Your task to perform on an android device: Go to Yahoo.com Image 0: 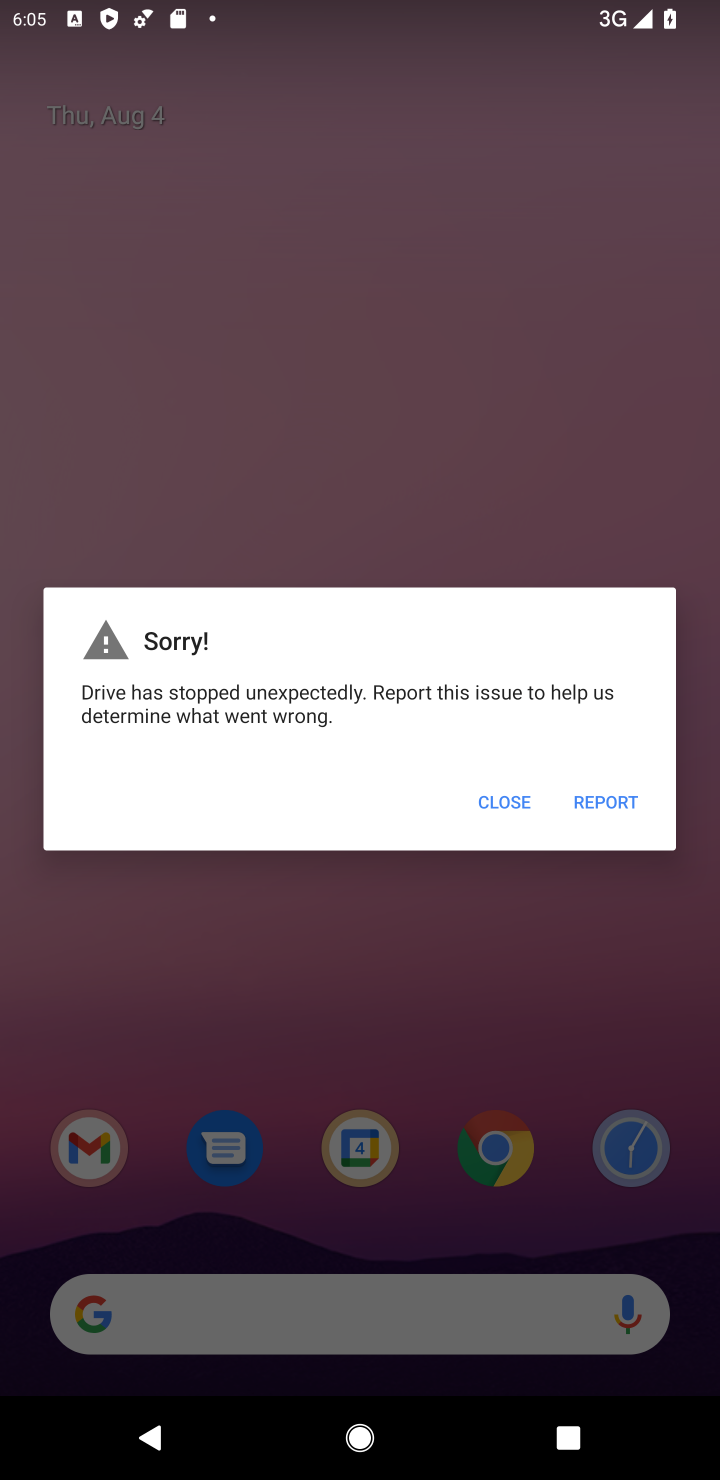
Step 0: press home button
Your task to perform on an android device: Go to Yahoo.com Image 1: 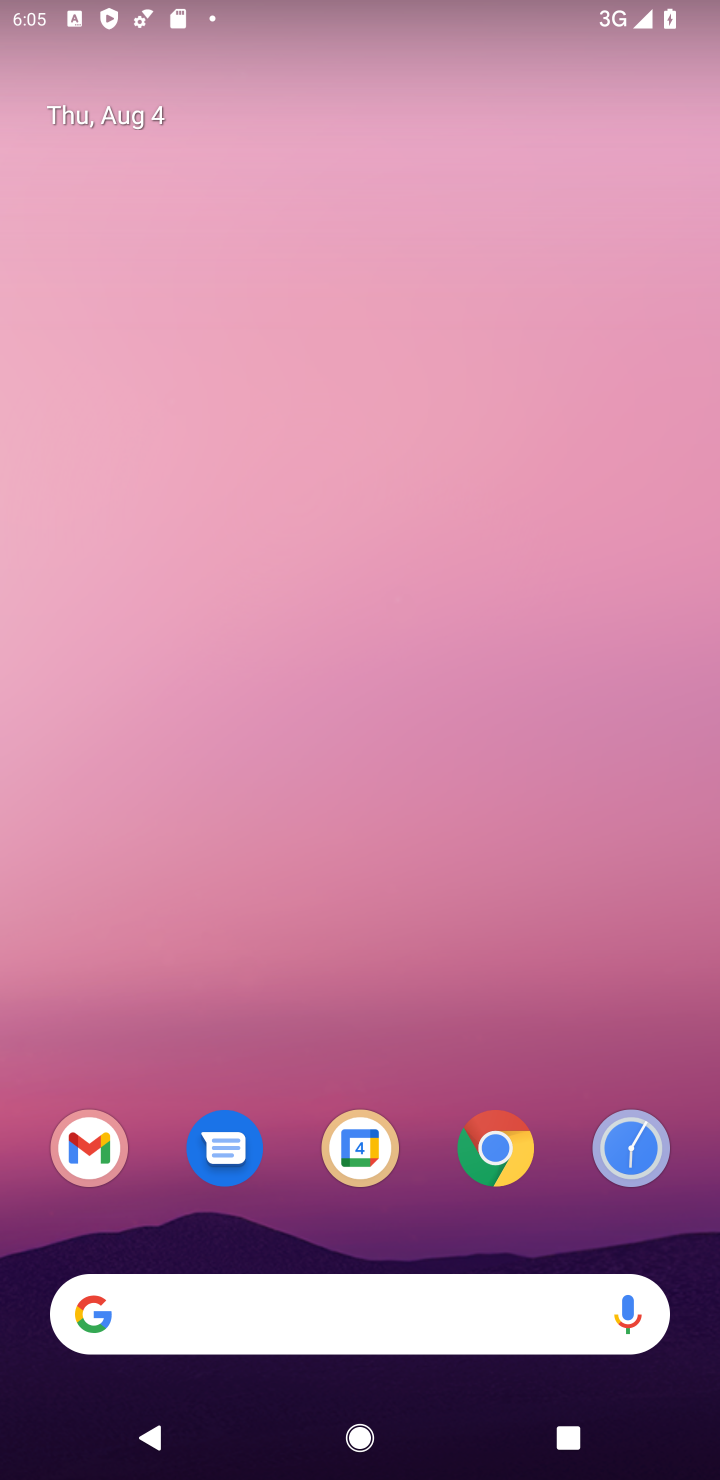
Step 1: click (492, 1152)
Your task to perform on an android device: Go to Yahoo.com Image 2: 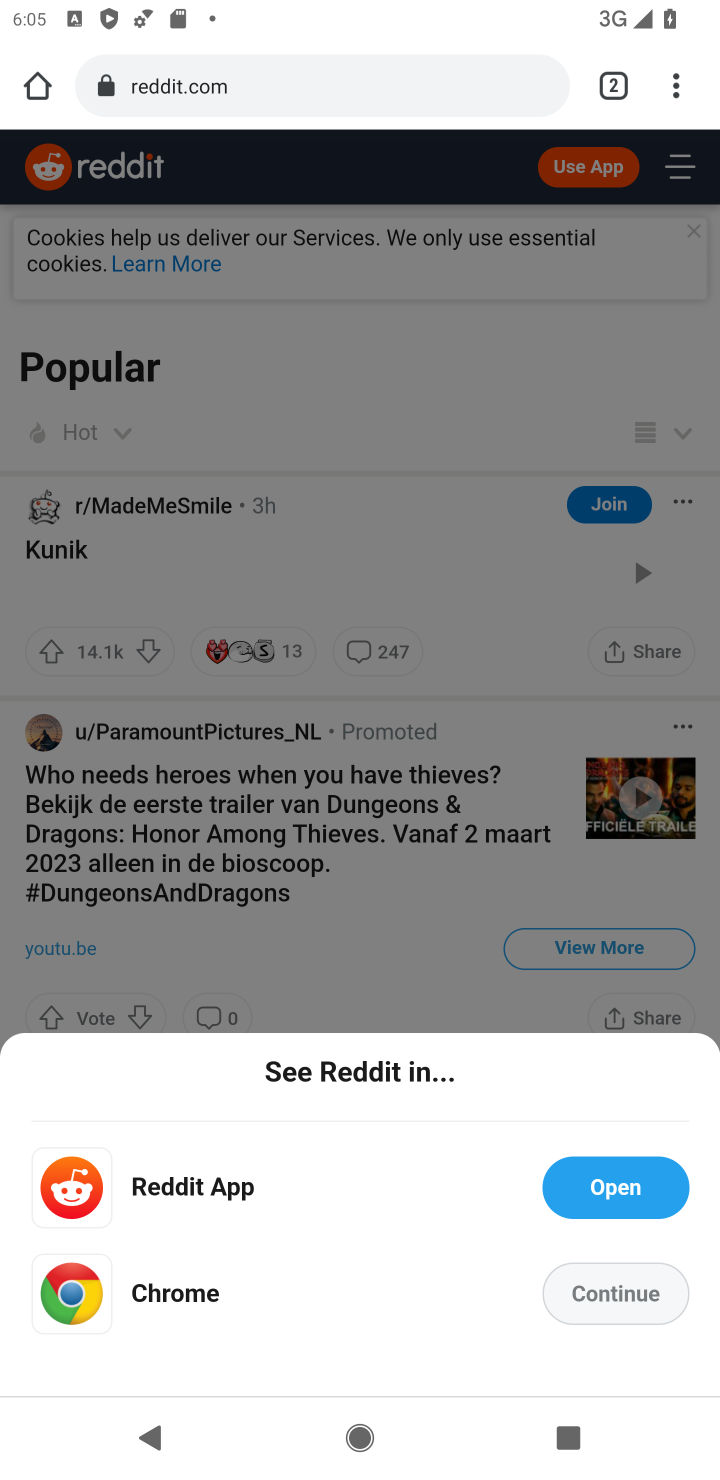
Step 2: click (293, 94)
Your task to perform on an android device: Go to Yahoo.com Image 3: 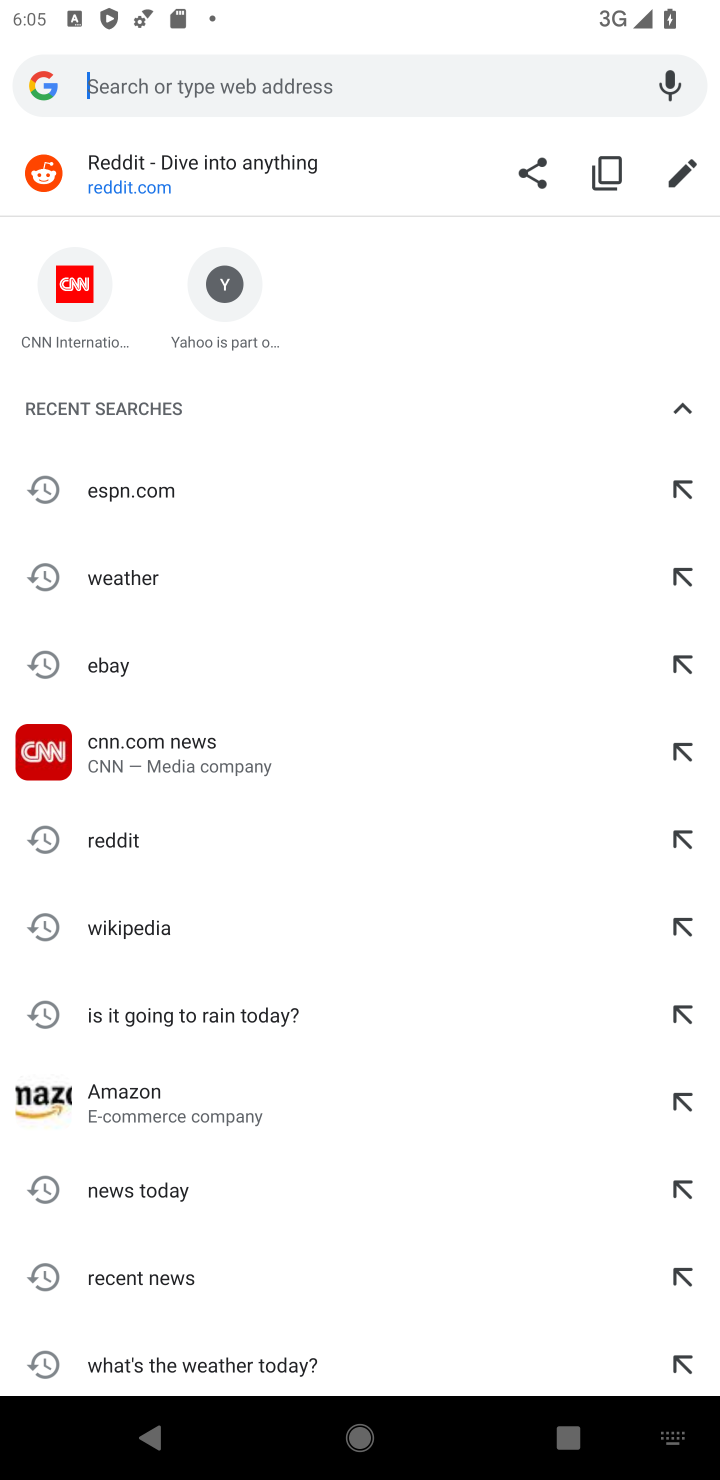
Step 3: type "yahoo.com"
Your task to perform on an android device: Go to Yahoo.com Image 4: 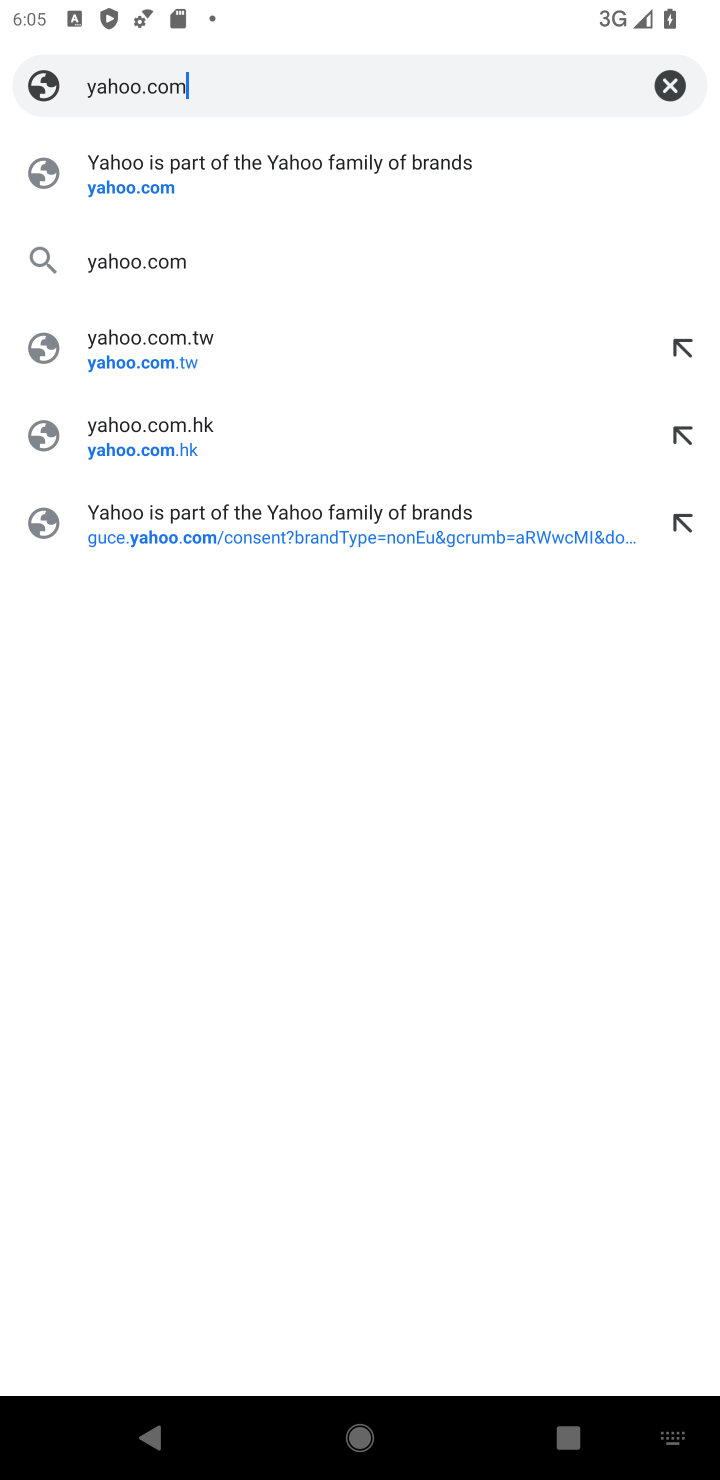
Step 4: click (137, 186)
Your task to perform on an android device: Go to Yahoo.com Image 5: 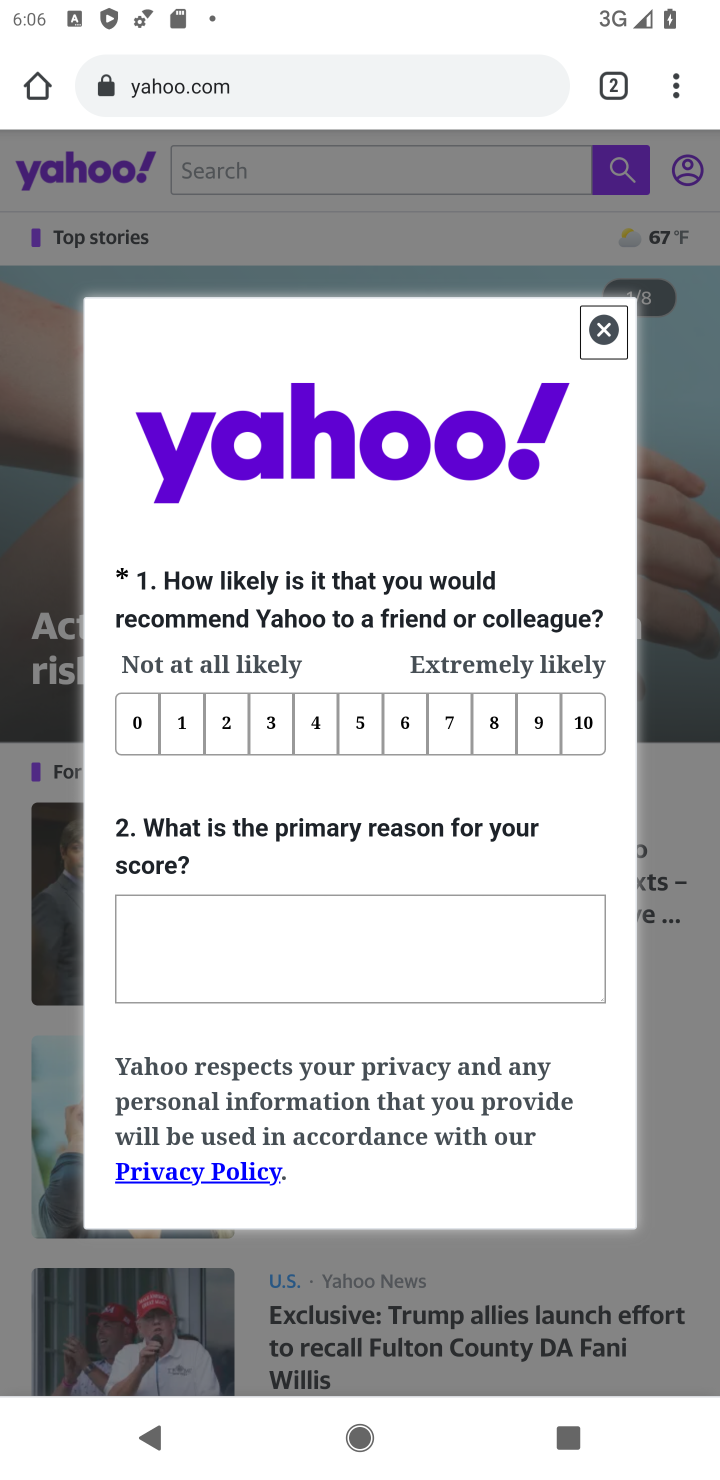
Step 5: click (600, 326)
Your task to perform on an android device: Go to Yahoo.com Image 6: 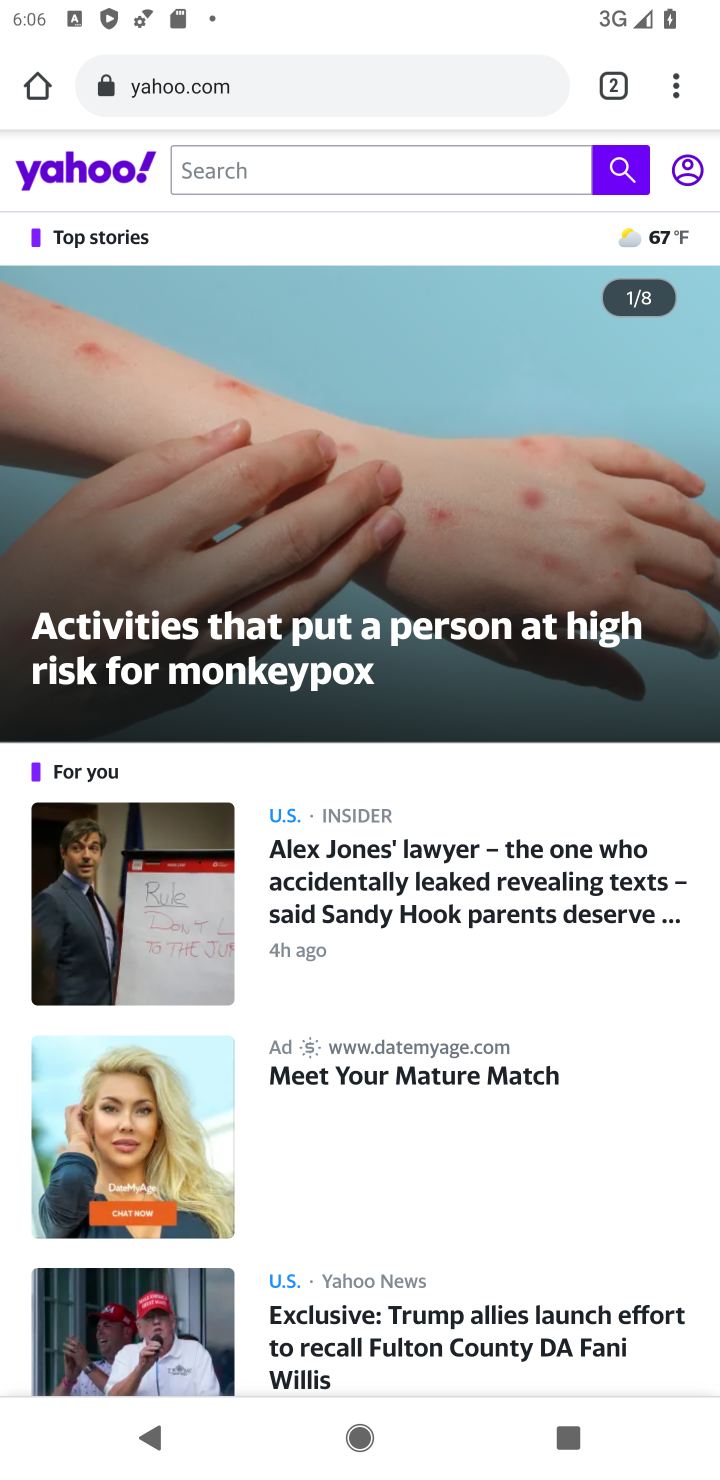
Step 6: task complete